Your task to perform on an android device: Clear the shopping cart on newegg. Image 0: 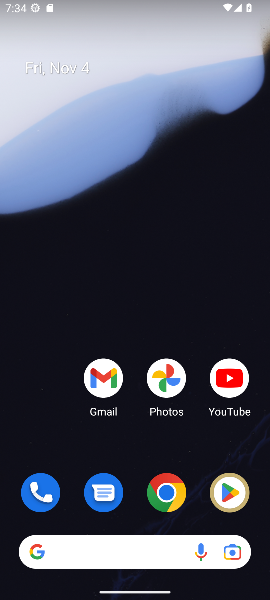
Step 0: drag from (128, 453) to (138, 53)
Your task to perform on an android device: Clear the shopping cart on newegg. Image 1: 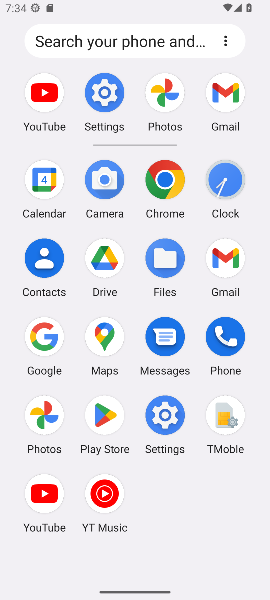
Step 1: click (166, 175)
Your task to perform on an android device: Clear the shopping cart on newegg. Image 2: 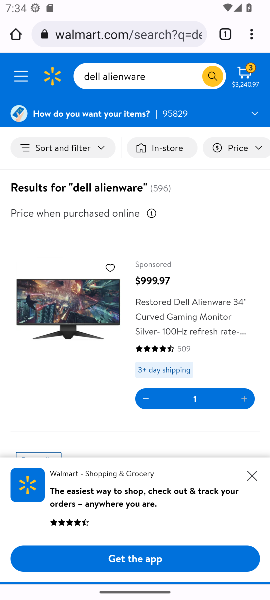
Step 2: click (98, 32)
Your task to perform on an android device: Clear the shopping cart on newegg. Image 3: 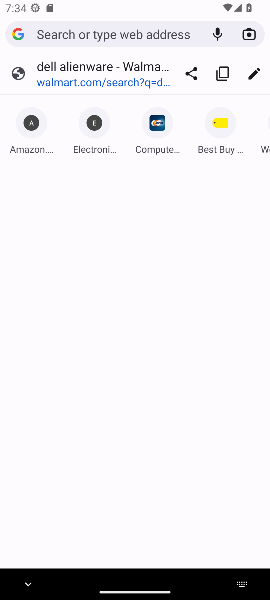
Step 3: type "newegg.com"
Your task to perform on an android device: Clear the shopping cart on newegg. Image 4: 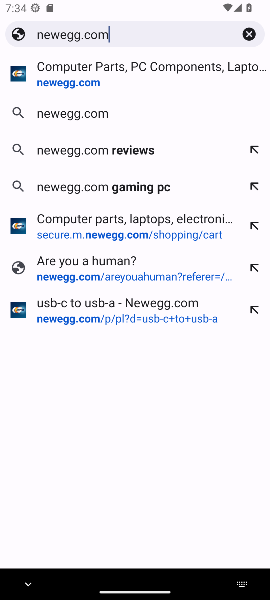
Step 4: press enter
Your task to perform on an android device: Clear the shopping cart on newegg. Image 5: 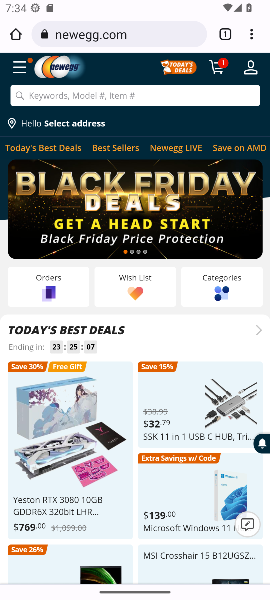
Step 5: click (213, 66)
Your task to perform on an android device: Clear the shopping cart on newegg. Image 6: 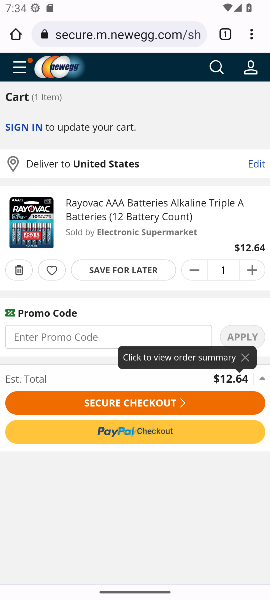
Step 6: click (20, 272)
Your task to perform on an android device: Clear the shopping cart on newegg. Image 7: 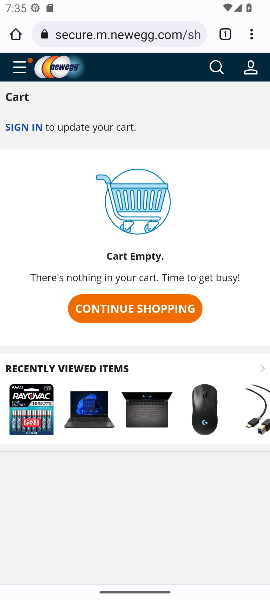
Step 7: task complete